Your task to perform on an android device: check data usage Image 0: 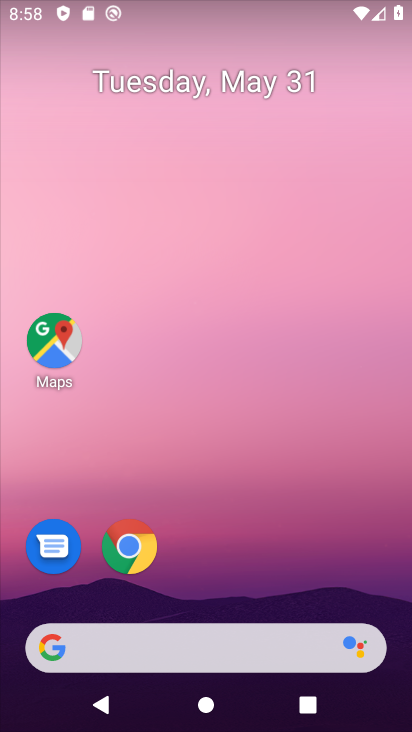
Step 0: drag from (385, 681) to (359, 81)
Your task to perform on an android device: check data usage Image 1: 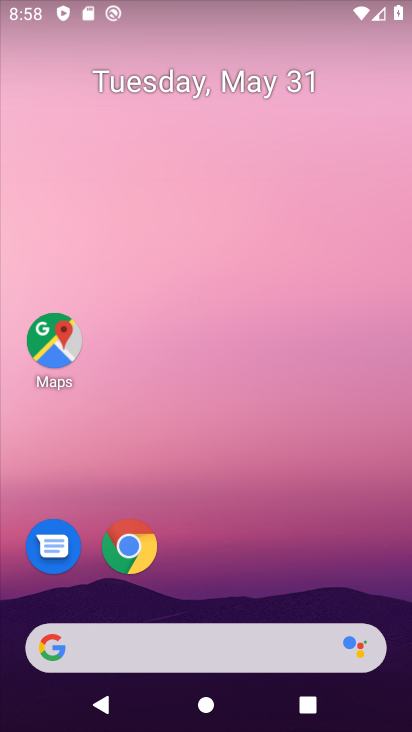
Step 1: drag from (399, 705) to (365, 17)
Your task to perform on an android device: check data usage Image 2: 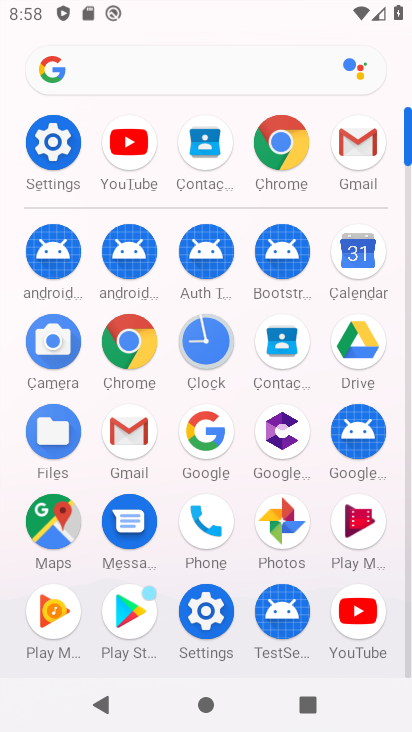
Step 2: click (53, 130)
Your task to perform on an android device: check data usage Image 3: 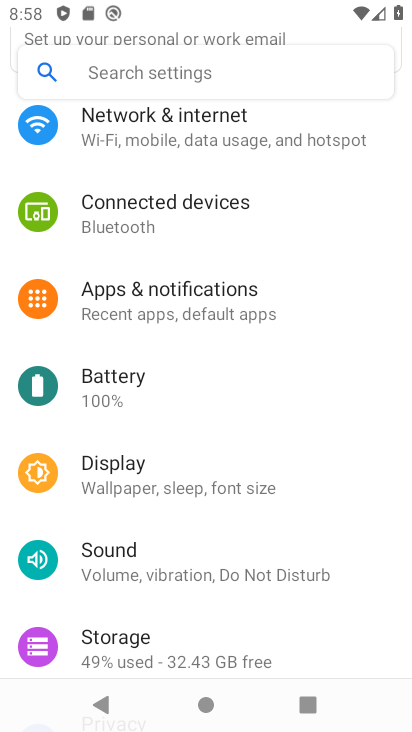
Step 3: drag from (373, 177) to (380, 490)
Your task to perform on an android device: check data usage Image 4: 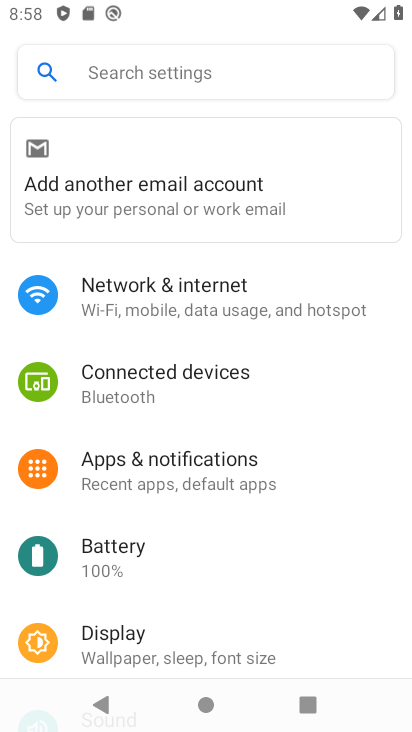
Step 4: click (161, 295)
Your task to perform on an android device: check data usage Image 5: 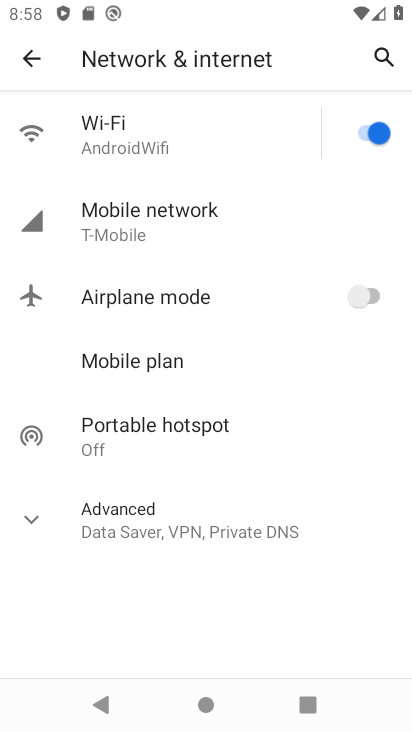
Step 5: click (128, 227)
Your task to perform on an android device: check data usage Image 6: 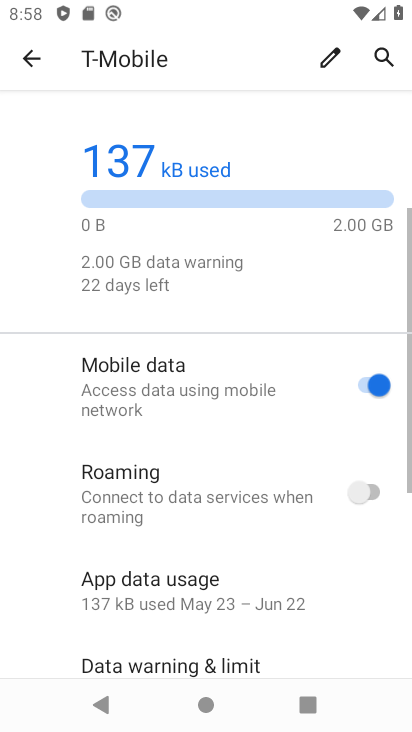
Step 6: task complete